Your task to perform on an android device: Is it going to rain tomorrow? Image 0: 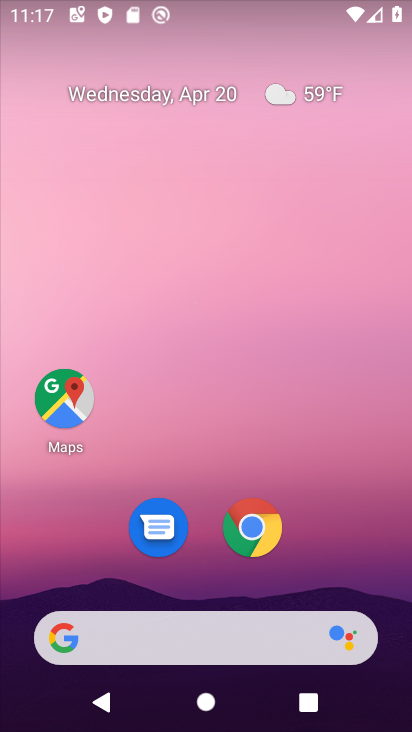
Step 0: drag from (371, 557) to (373, 201)
Your task to perform on an android device: Is it going to rain tomorrow? Image 1: 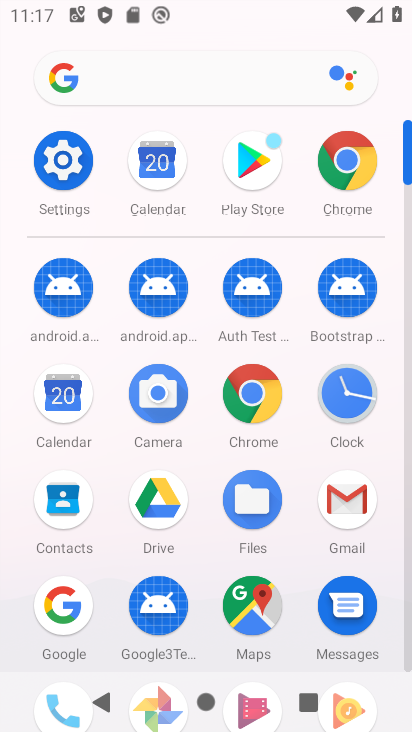
Step 1: click (259, 400)
Your task to perform on an android device: Is it going to rain tomorrow? Image 2: 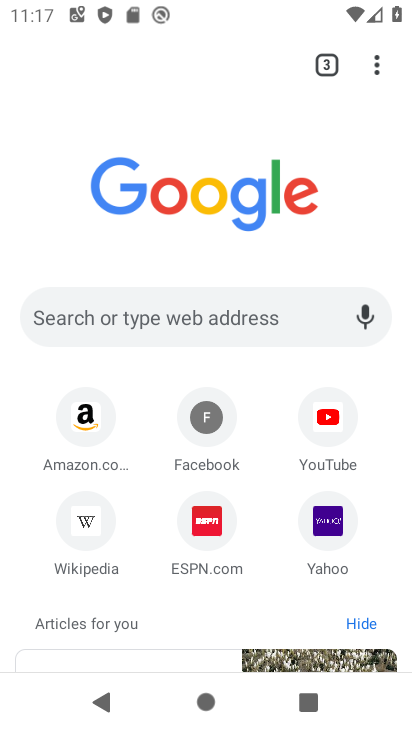
Step 2: click (245, 316)
Your task to perform on an android device: Is it going to rain tomorrow? Image 3: 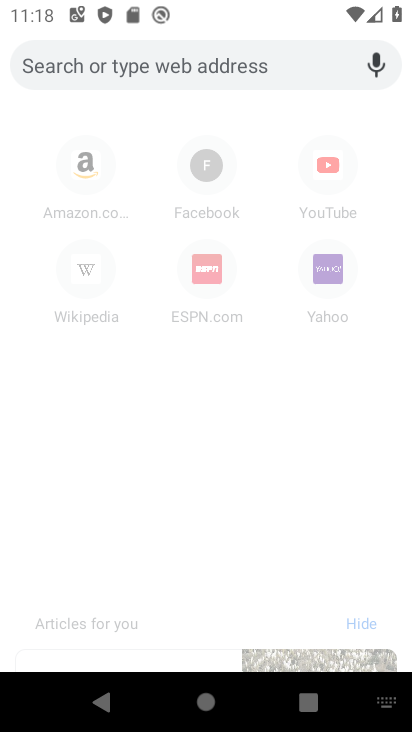
Step 3: type "is it going to rain tomorrow"
Your task to perform on an android device: Is it going to rain tomorrow? Image 4: 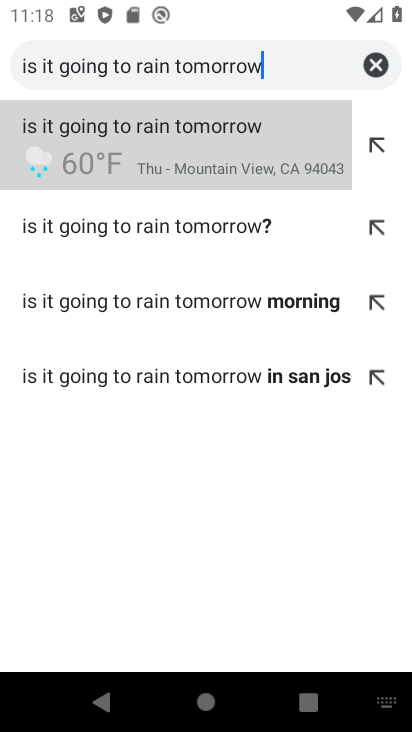
Step 4: click (141, 232)
Your task to perform on an android device: Is it going to rain tomorrow? Image 5: 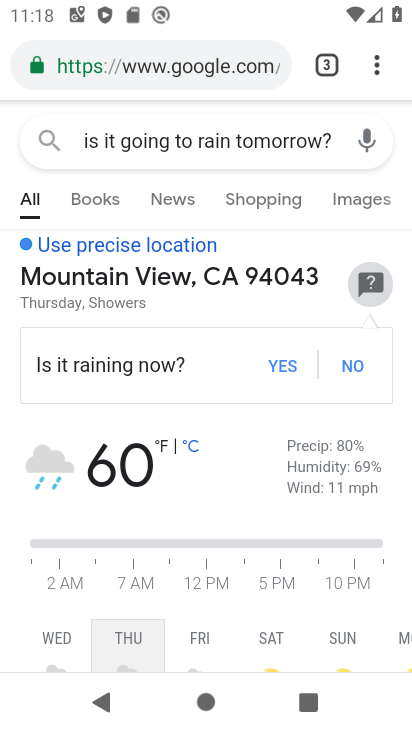
Step 5: task complete